Your task to perform on an android device: turn on notifications settings in the gmail app Image 0: 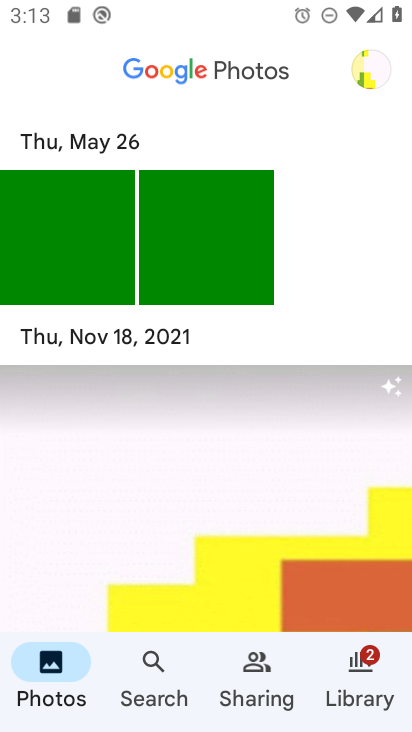
Step 0: drag from (205, 541) to (203, 107)
Your task to perform on an android device: turn on notifications settings in the gmail app Image 1: 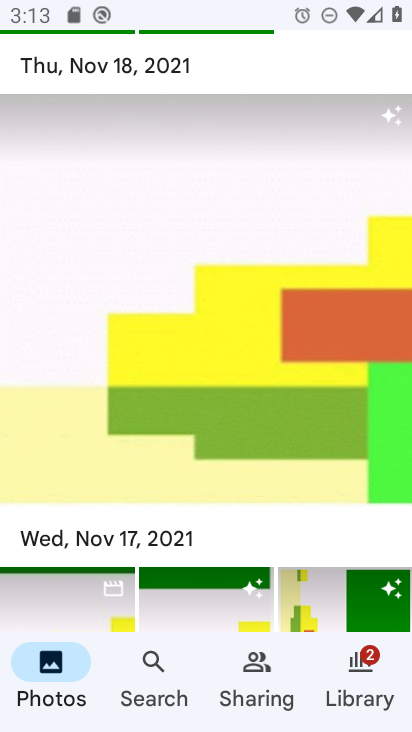
Step 1: press home button
Your task to perform on an android device: turn on notifications settings in the gmail app Image 2: 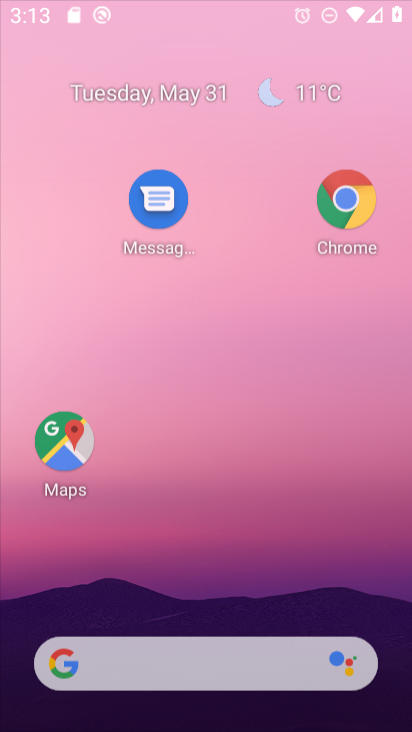
Step 2: drag from (225, 576) to (321, 127)
Your task to perform on an android device: turn on notifications settings in the gmail app Image 3: 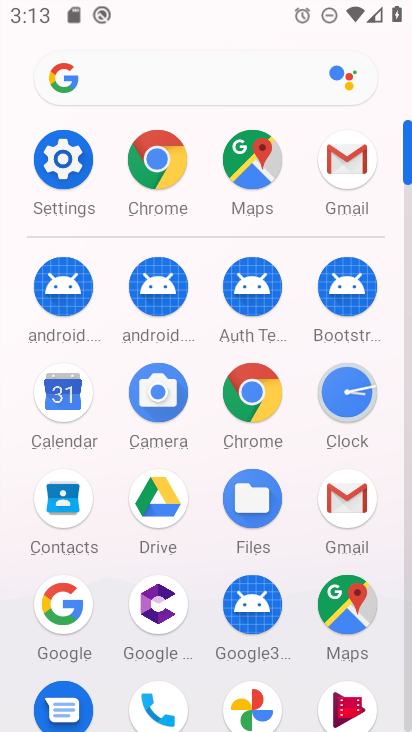
Step 3: click (333, 505)
Your task to perform on an android device: turn on notifications settings in the gmail app Image 4: 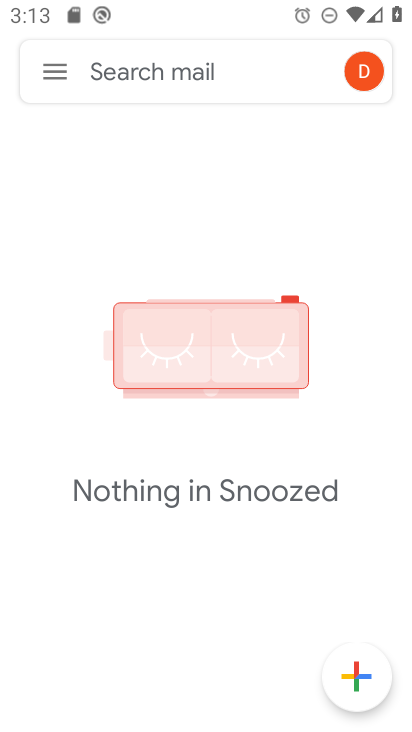
Step 4: click (70, 86)
Your task to perform on an android device: turn on notifications settings in the gmail app Image 5: 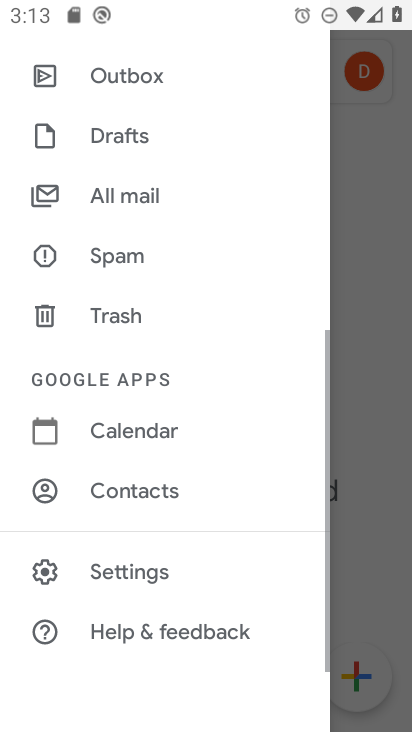
Step 5: click (167, 582)
Your task to perform on an android device: turn on notifications settings in the gmail app Image 6: 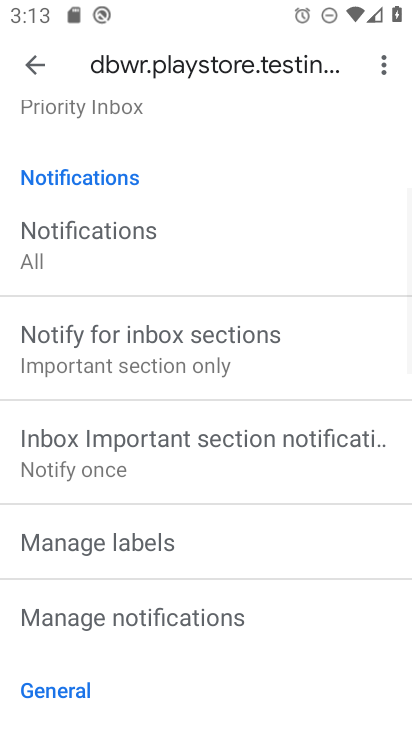
Step 6: click (177, 607)
Your task to perform on an android device: turn on notifications settings in the gmail app Image 7: 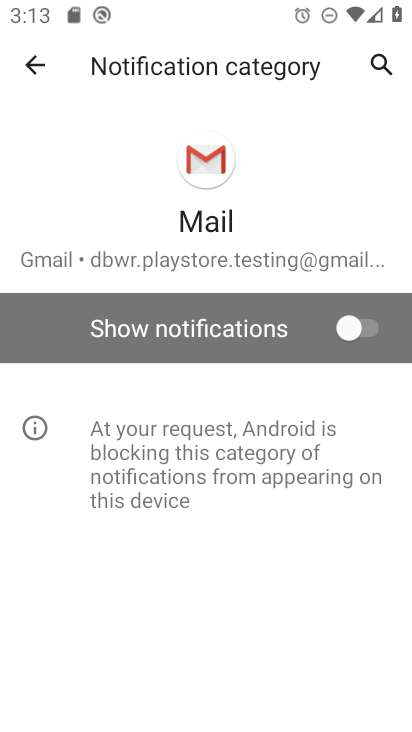
Step 7: click (355, 339)
Your task to perform on an android device: turn on notifications settings in the gmail app Image 8: 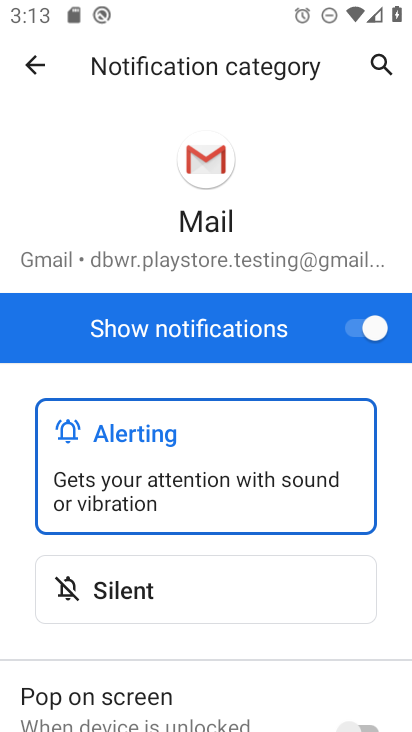
Step 8: task complete